Your task to perform on an android device: turn on wifi Image 0: 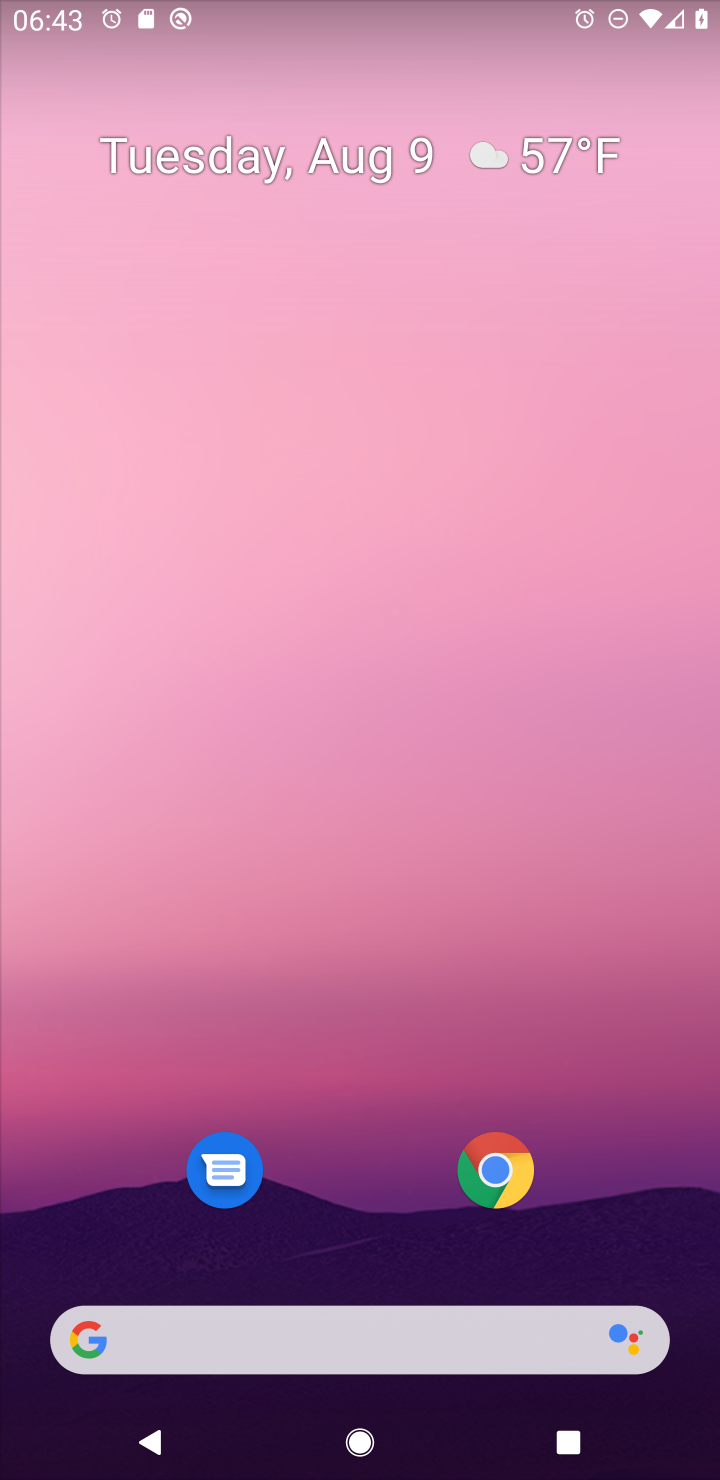
Step 0: press home button
Your task to perform on an android device: turn on wifi Image 1: 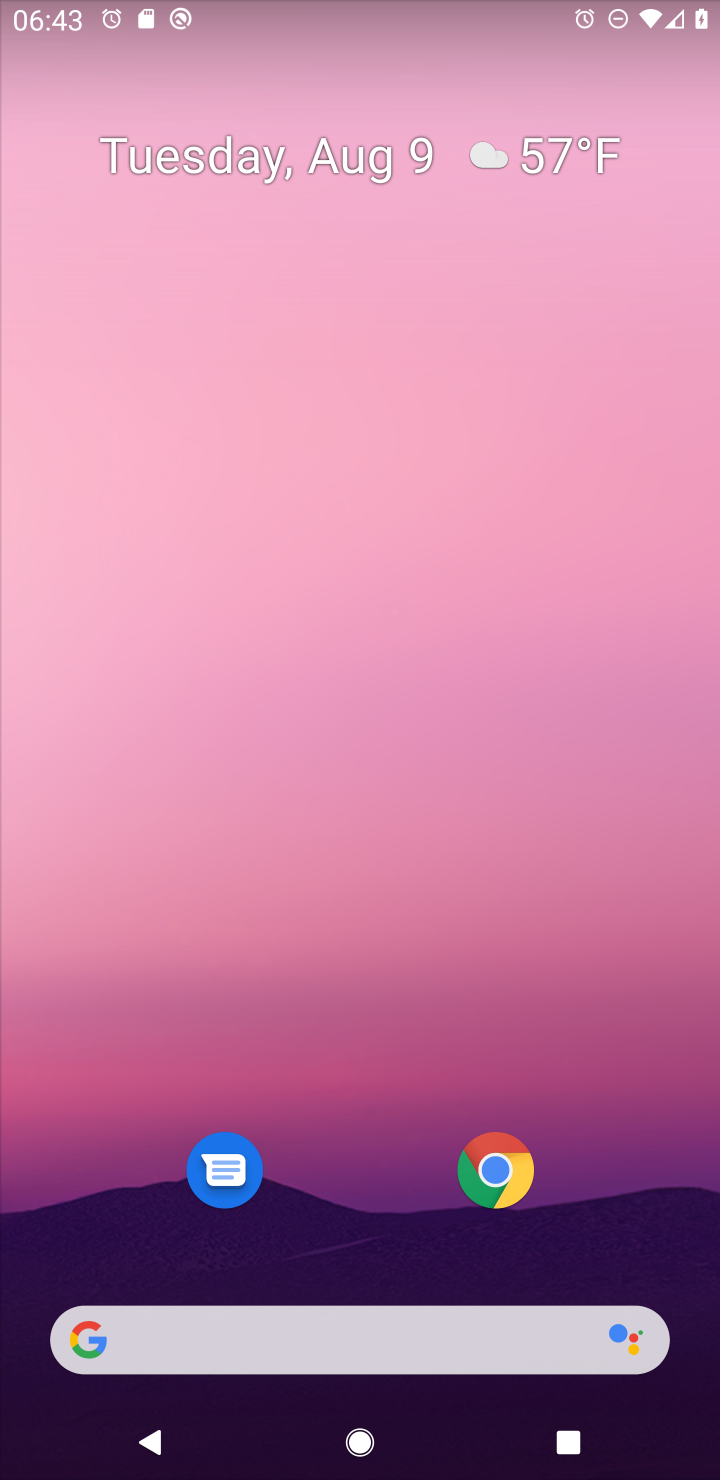
Step 1: task complete